Your task to perform on an android device: see creations saved in the google photos Image 0: 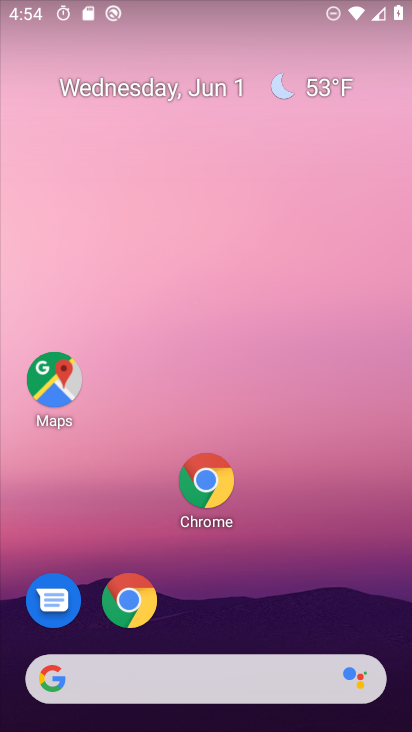
Step 0: drag from (219, 687) to (145, 167)
Your task to perform on an android device: see creations saved in the google photos Image 1: 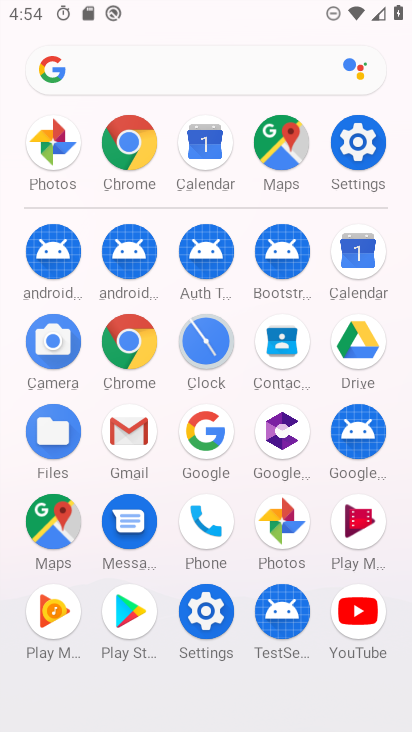
Step 1: click (267, 515)
Your task to perform on an android device: see creations saved in the google photos Image 2: 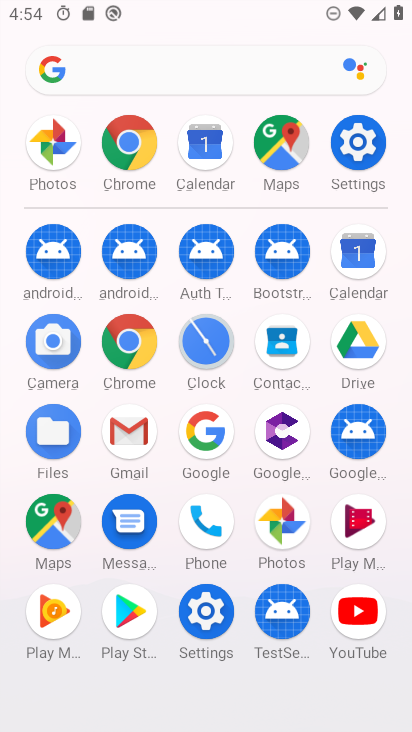
Step 2: click (268, 516)
Your task to perform on an android device: see creations saved in the google photos Image 3: 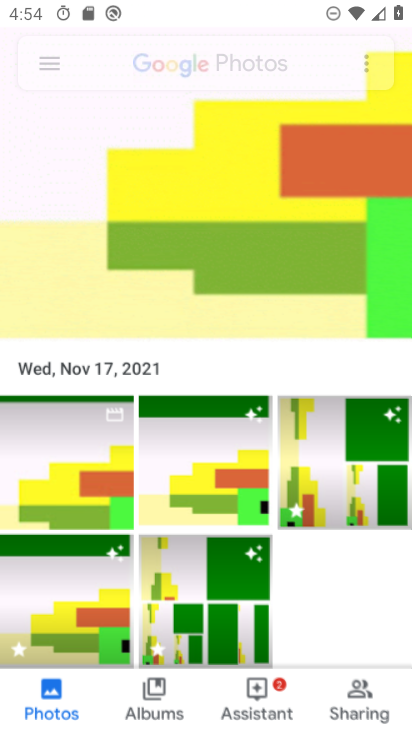
Step 3: click (283, 517)
Your task to perform on an android device: see creations saved in the google photos Image 4: 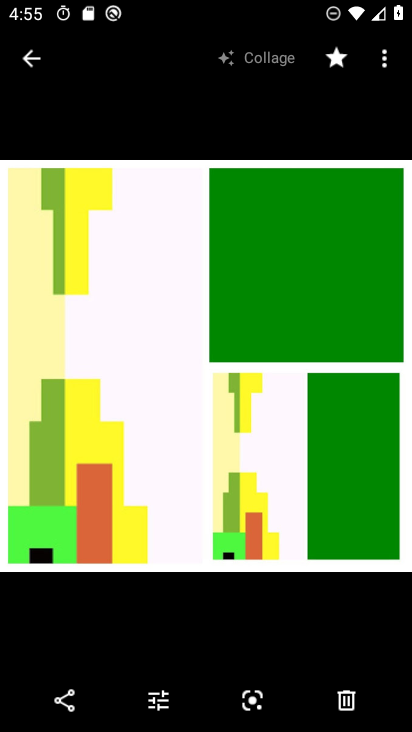
Step 4: task complete